Your task to perform on an android device: find which apps use the phone's location Image 0: 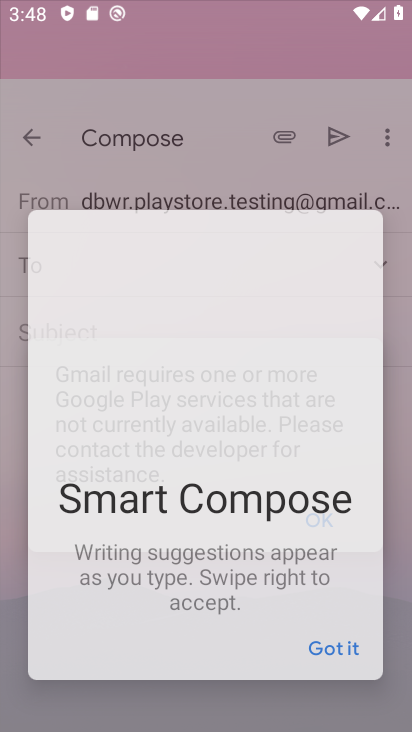
Step 0: click (186, 6)
Your task to perform on an android device: find which apps use the phone's location Image 1: 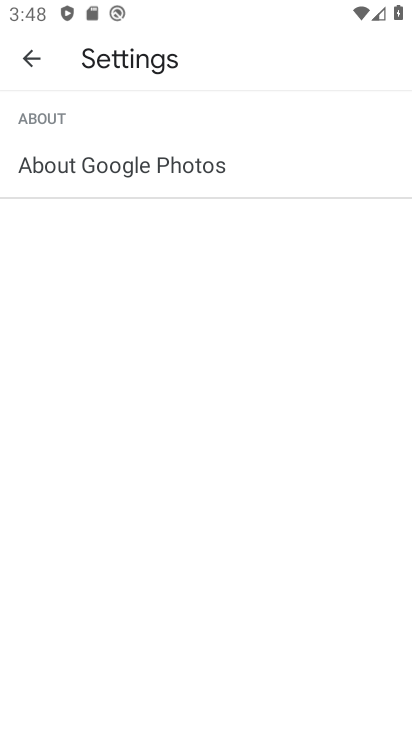
Step 1: press back button
Your task to perform on an android device: find which apps use the phone's location Image 2: 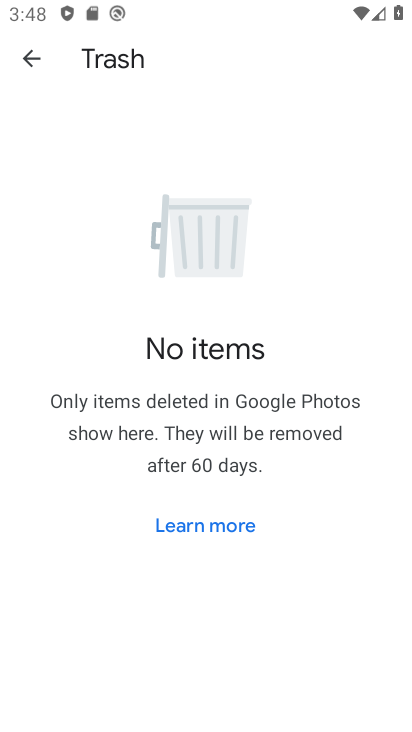
Step 2: press back button
Your task to perform on an android device: find which apps use the phone's location Image 3: 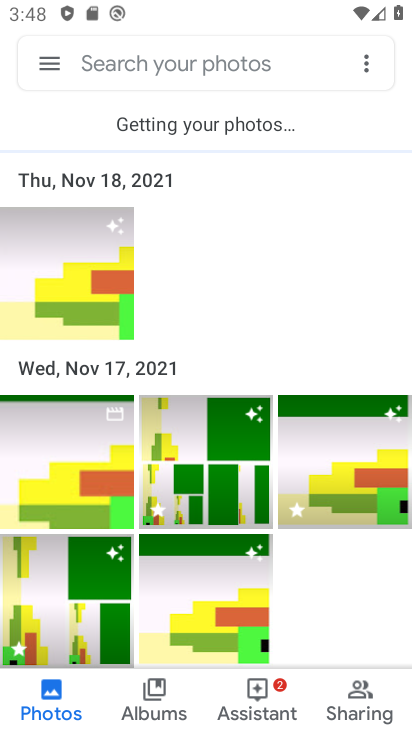
Step 3: press home button
Your task to perform on an android device: find which apps use the phone's location Image 4: 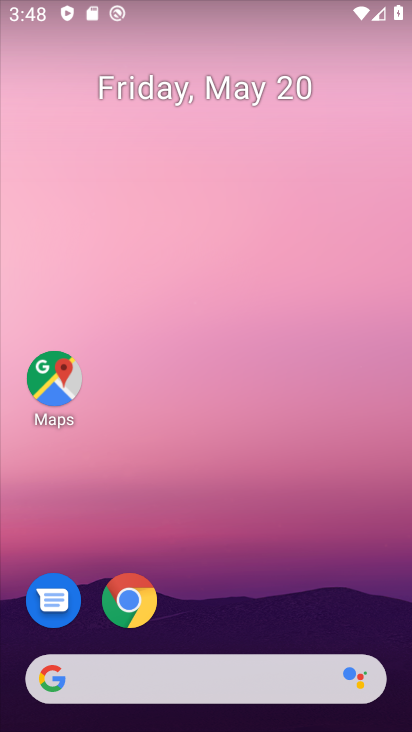
Step 4: drag from (193, 659) to (193, 49)
Your task to perform on an android device: find which apps use the phone's location Image 5: 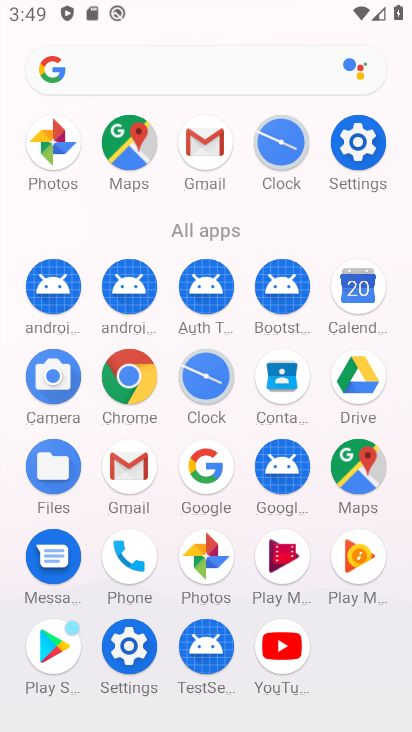
Step 5: drag from (9, 560) to (12, 301)
Your task to perform on an android device: find which apps use the phone's location Image 6: 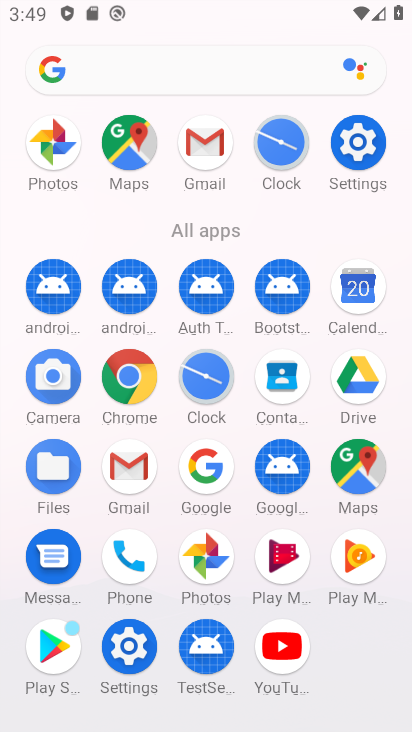
Step 6: drag from (12, 608) to (11, 329)
Your task to perform on an android device: find which apps use the phone's location Image 7: 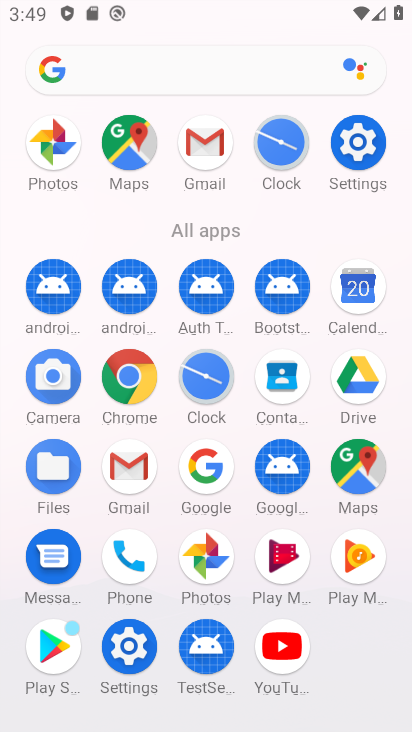
Step 7: click (130, 644)
Your task to perform on an android device: find which apps use the phone's location Image 8: 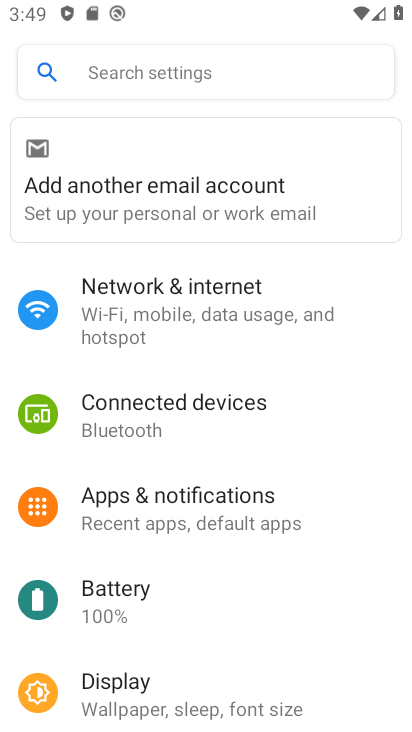
Step 8: drag from (228, 597) to (233, 253)
Your task to perform on an android device: find which apps use the phone's location Image 9: 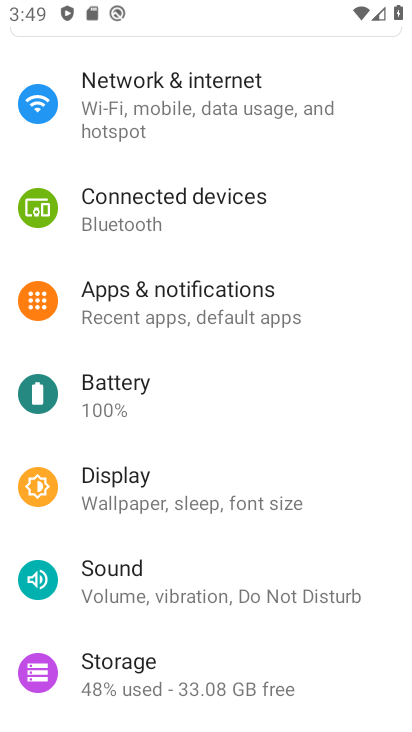
Step 9: drag from (222, 549) to (244, 184)
Your task to perform on an android device: find which apps use the phone's location Image 10: 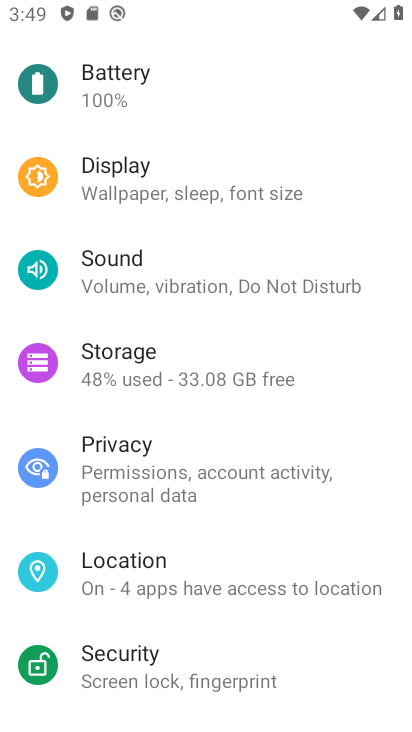
Step 10: click (132, 591)
Your task to perform on an android device: find which apps use the phone's location Image 11: 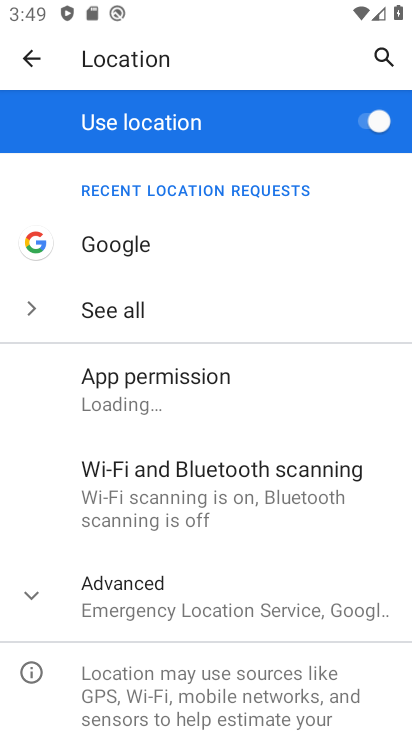
Step 11: click (75, 592)
Your task to perform on an android device: find which apps use the phone's location Image 12: 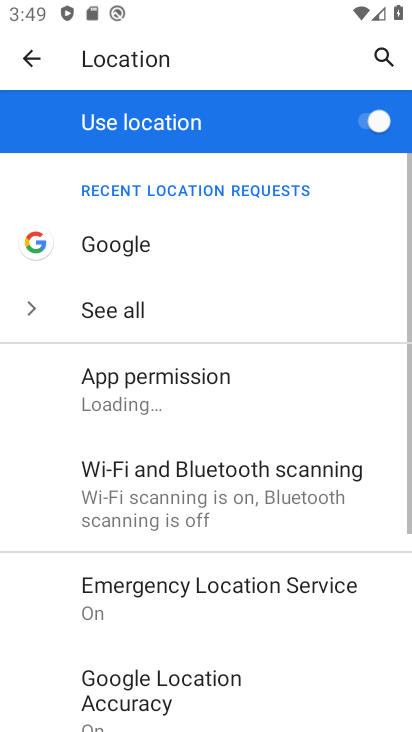
Step 12: drag from (245, 571) to (255, 190)
Your task to perform on an android device: find which apps use the phone's location Image 13: 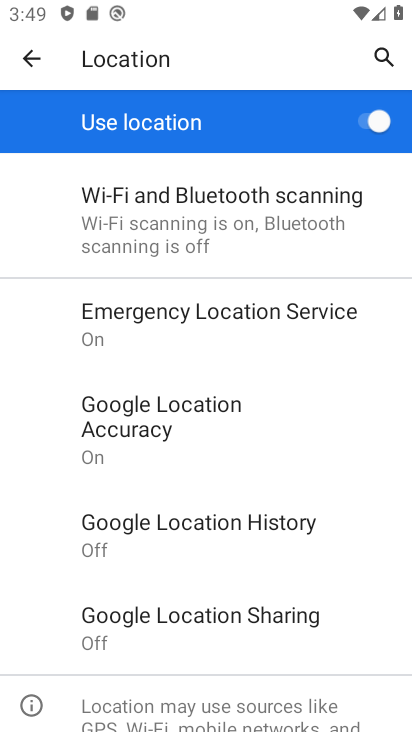
Step 13: drag from (223, 260) to (224, 642)
Your task to perform on an android device: find which apps use the phone's location Image 14: 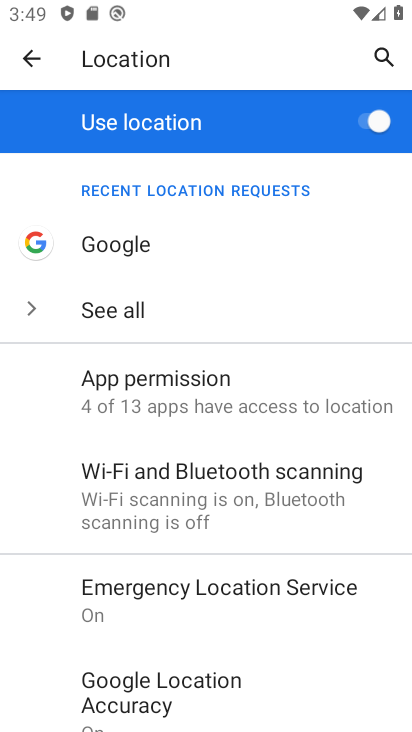
Step 14: click (167, 390)
Your task to perform on an android device: find which apps use the phone's location Image 15: 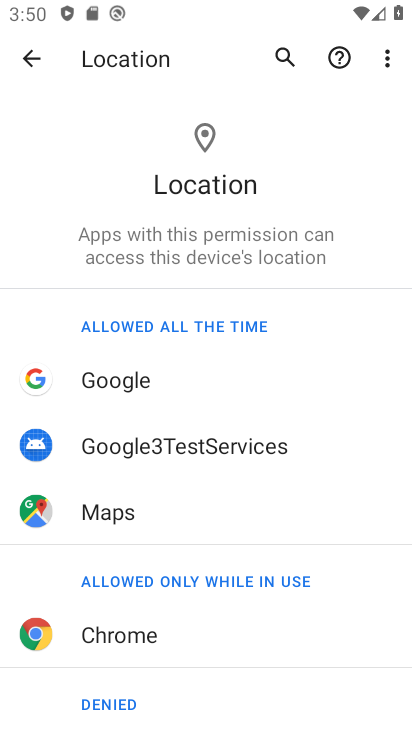
Step 15: task complete